Your task to perform on an android device: Show me popular videos on Youtube Image 0: 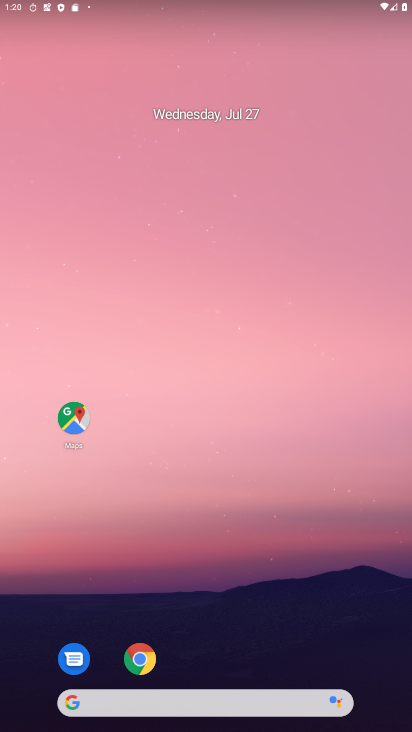
Step 0: press home button
Your task to perform on an android device: Show me popular videos on Youtube Image 1: 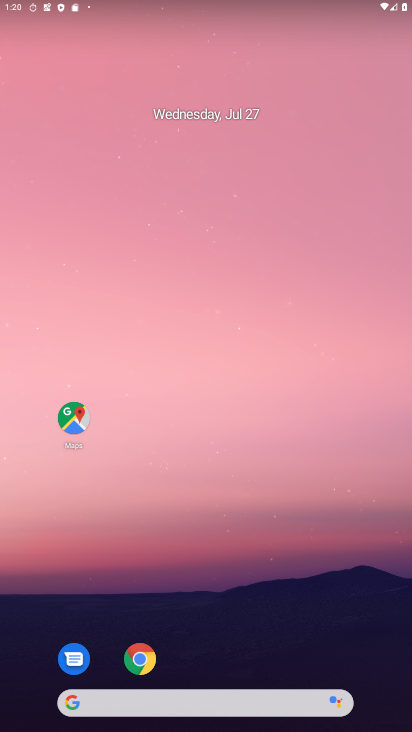
Step 1: drag from (220, 672) to (216, 120)
Your task to perform on an android device: Show me popular videos on Youtube Image 2: 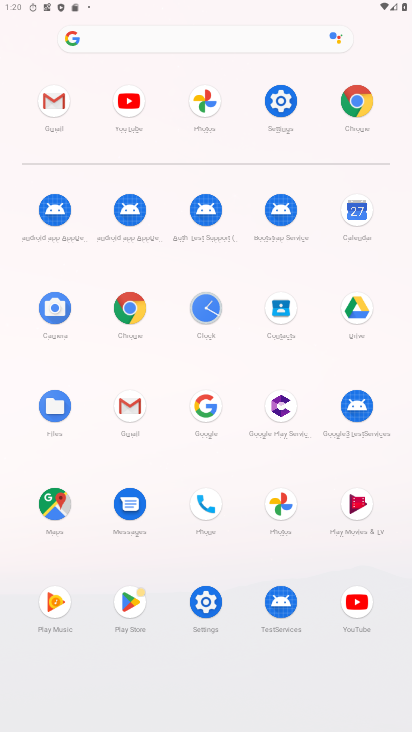
Step 2: click (356, 596)
Your task to perform on an android device: Show me popular videos on Youtube Image 3: 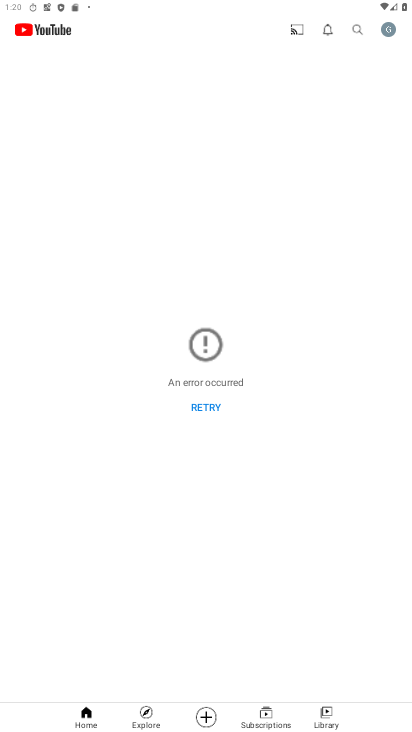
Step 3: click (144, 707)
Your task to perform on an android device: Show me popular videos on Youtube Image 4: 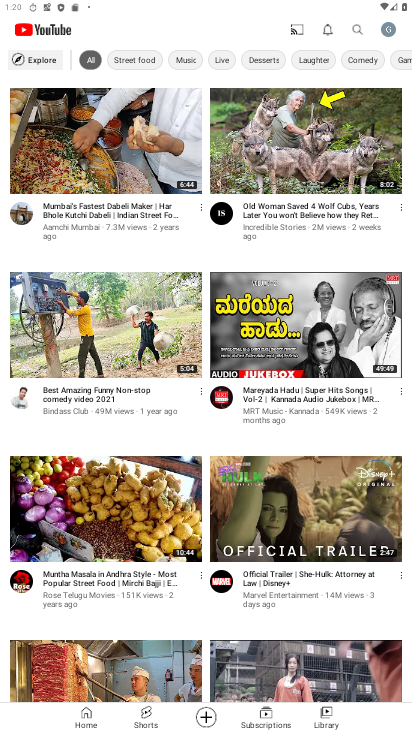
Step 4: click (24, 56)
Your task to perform on an android device: Show me popular videos on Youtube Image 5: 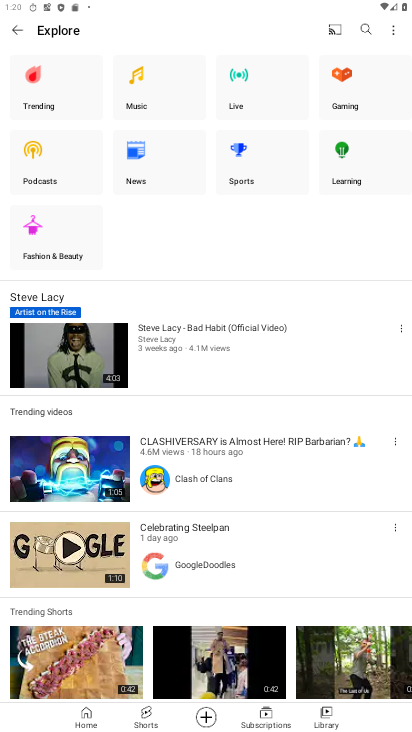
Step 5: click (41, 82)
Your task to perform on an android device: Show me popular videos on Youtube Image 6: 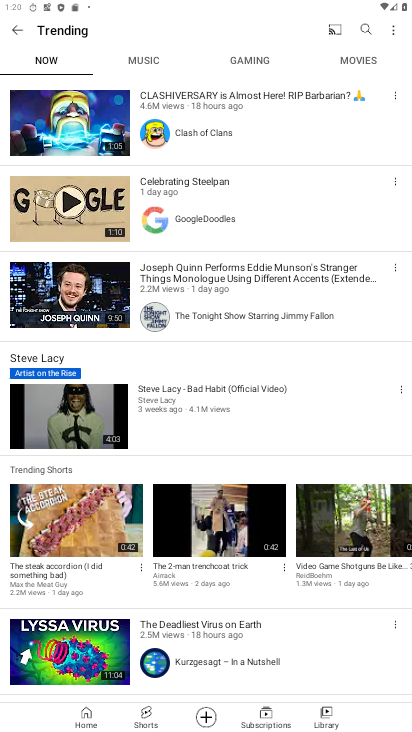
Step 6: task complete